Your task to perform on an android device: install app "Upside-Cash back on gas & food" Image 0: 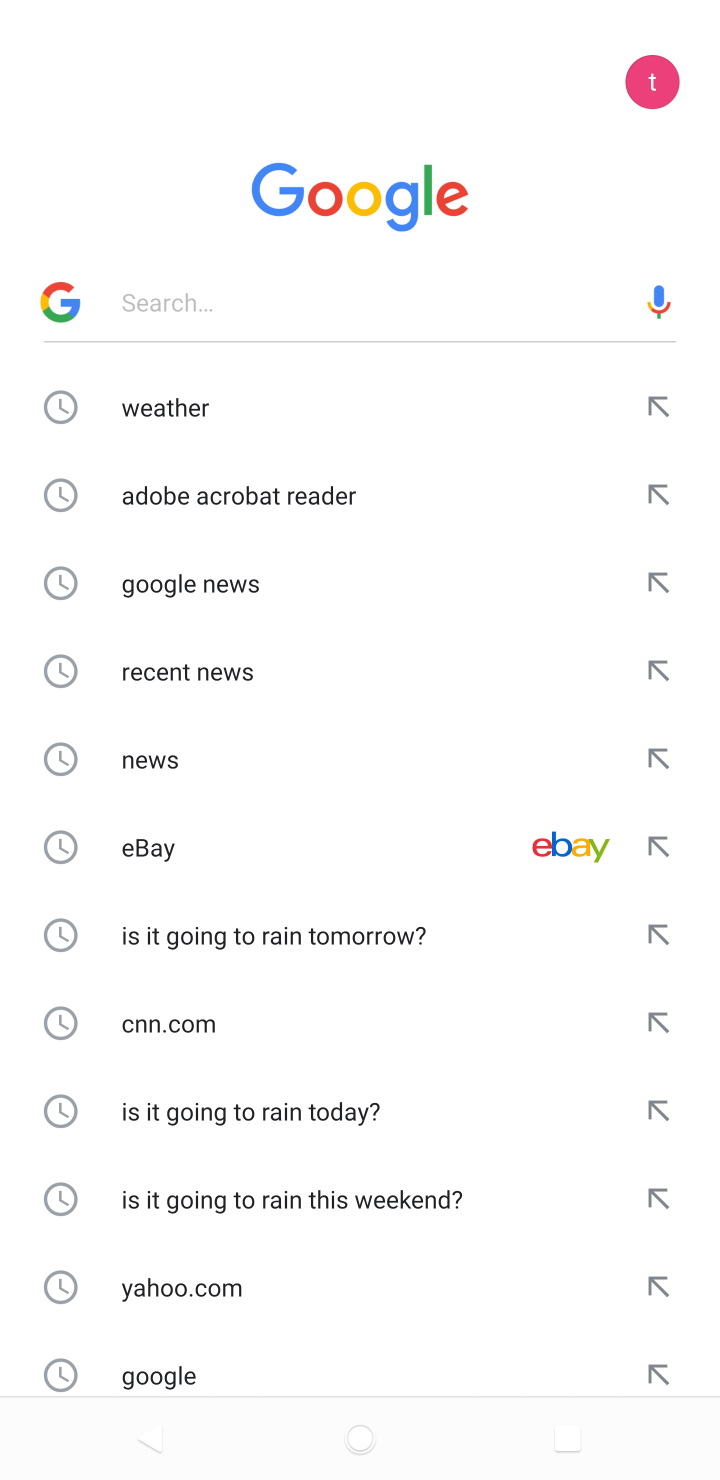
Step 0: press home button
Your task to perform on an android device: install app "Upside-Cash back on gas & food" Image 1: 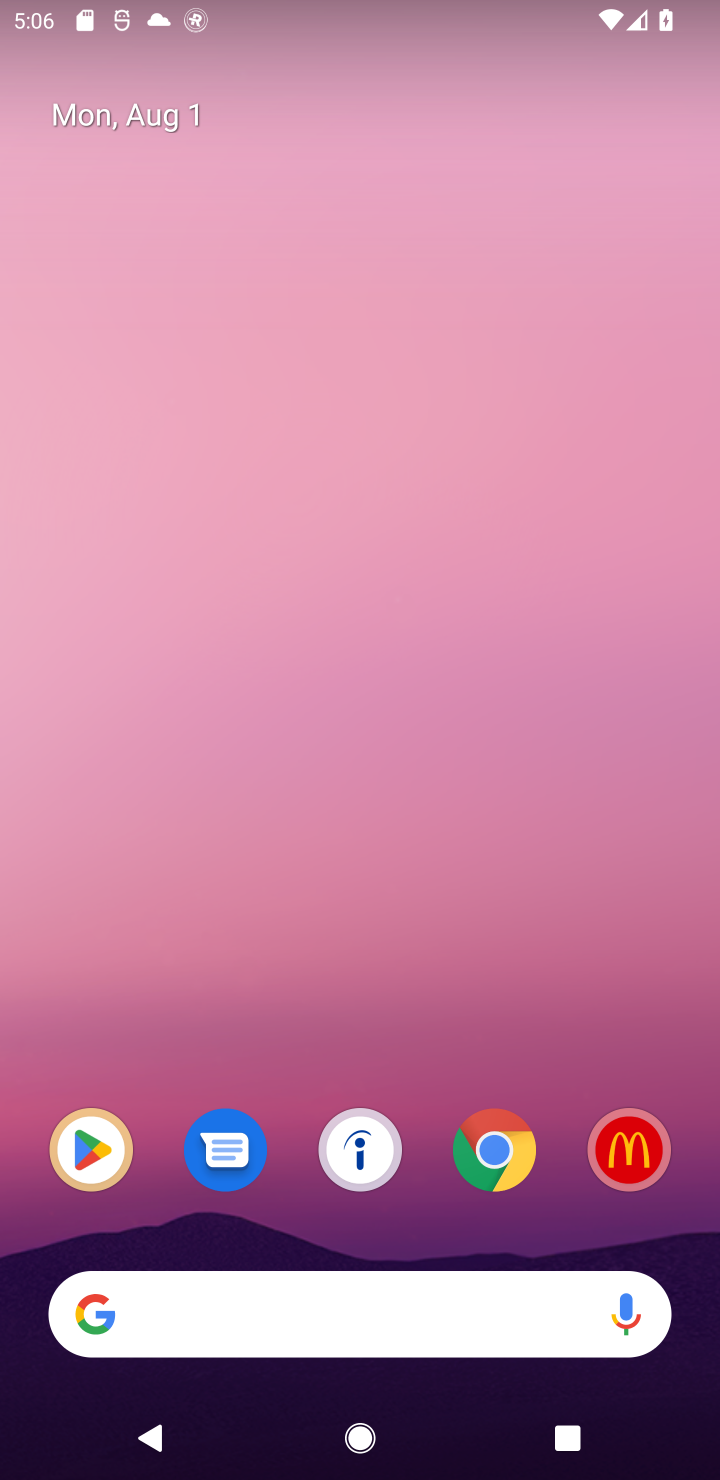
Step 1: click (101, 1151)
Your task to perform on an android device: install app "Upside-Cash back on gas & food" Image 2: 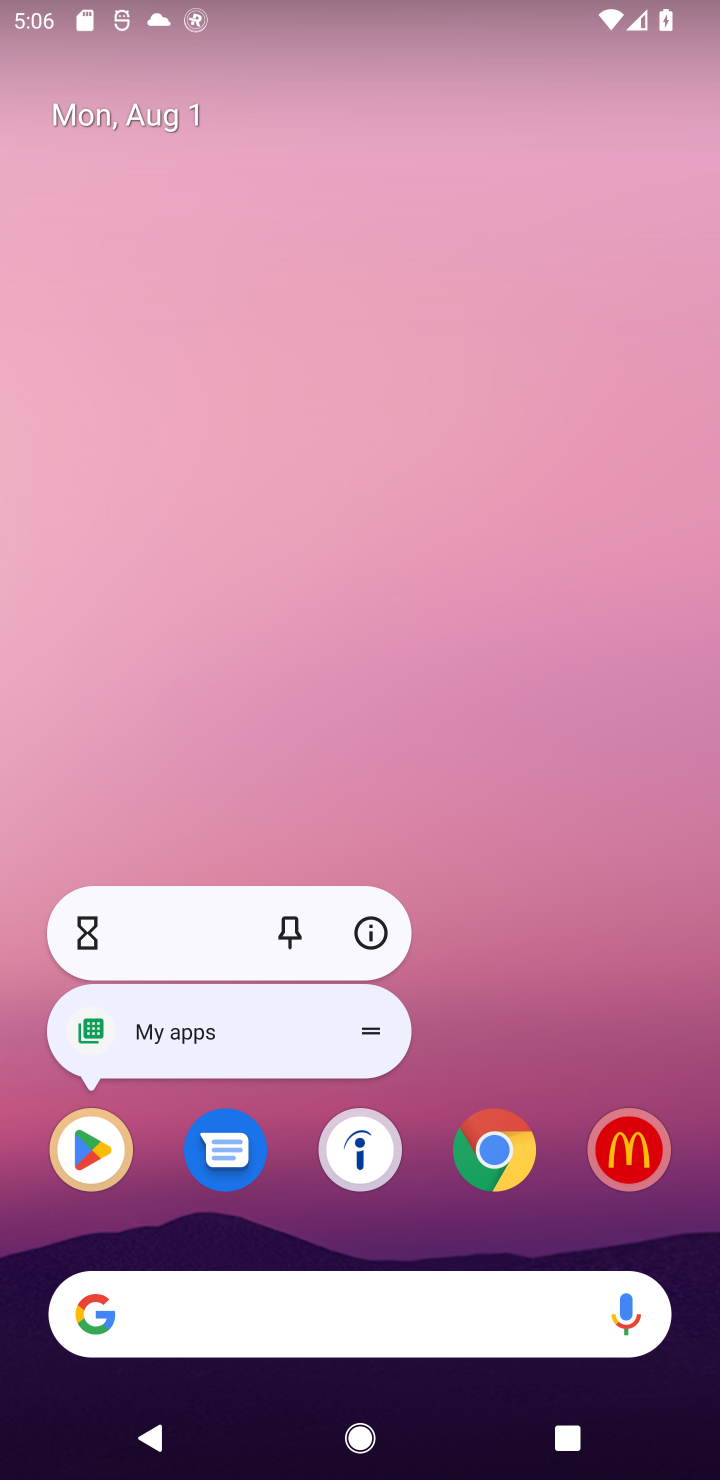
Step 2: click (329, 482)
Your task to perform on an android device: install app "Upside-Cash back on gas & food" Image 3: 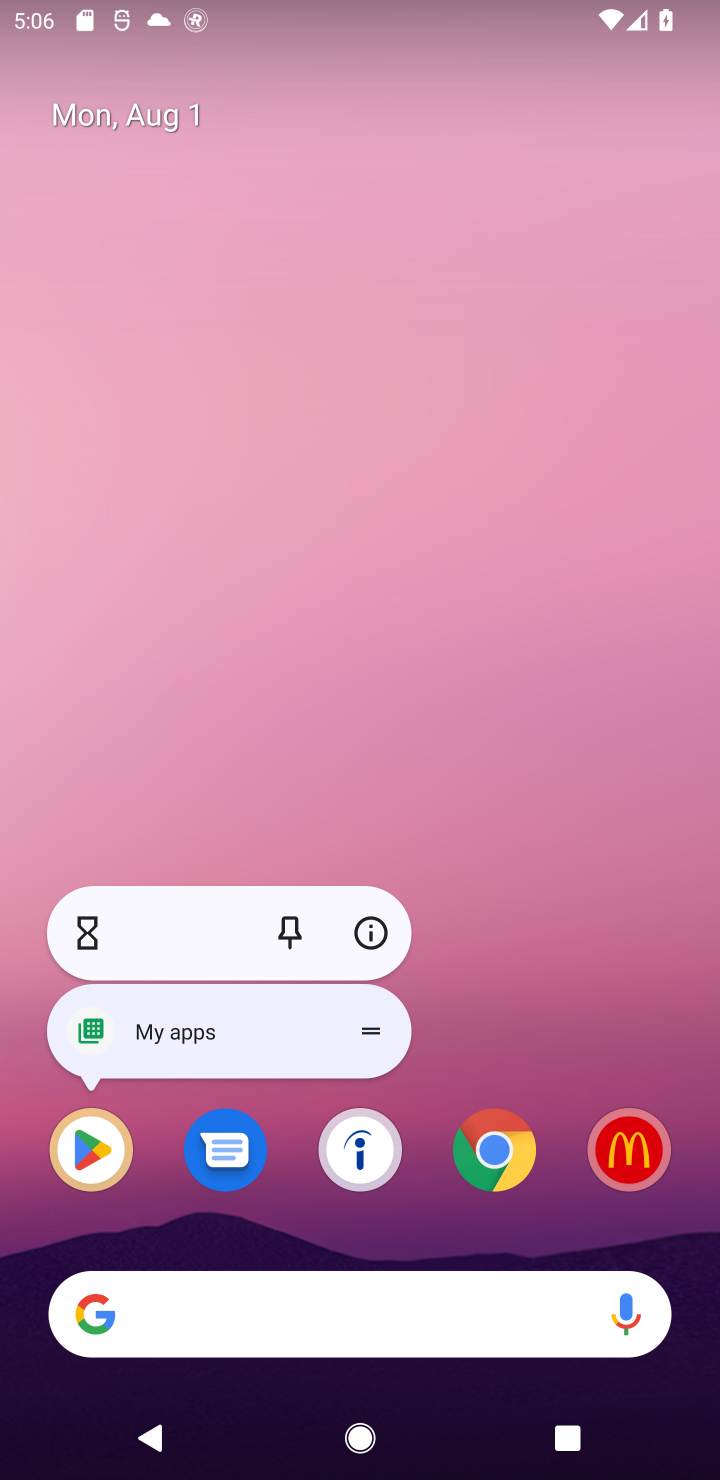
Step 3: click (329, 482)
Your task to perform on an android device: install app "Upside-Cash back on gas & food" Image 4: 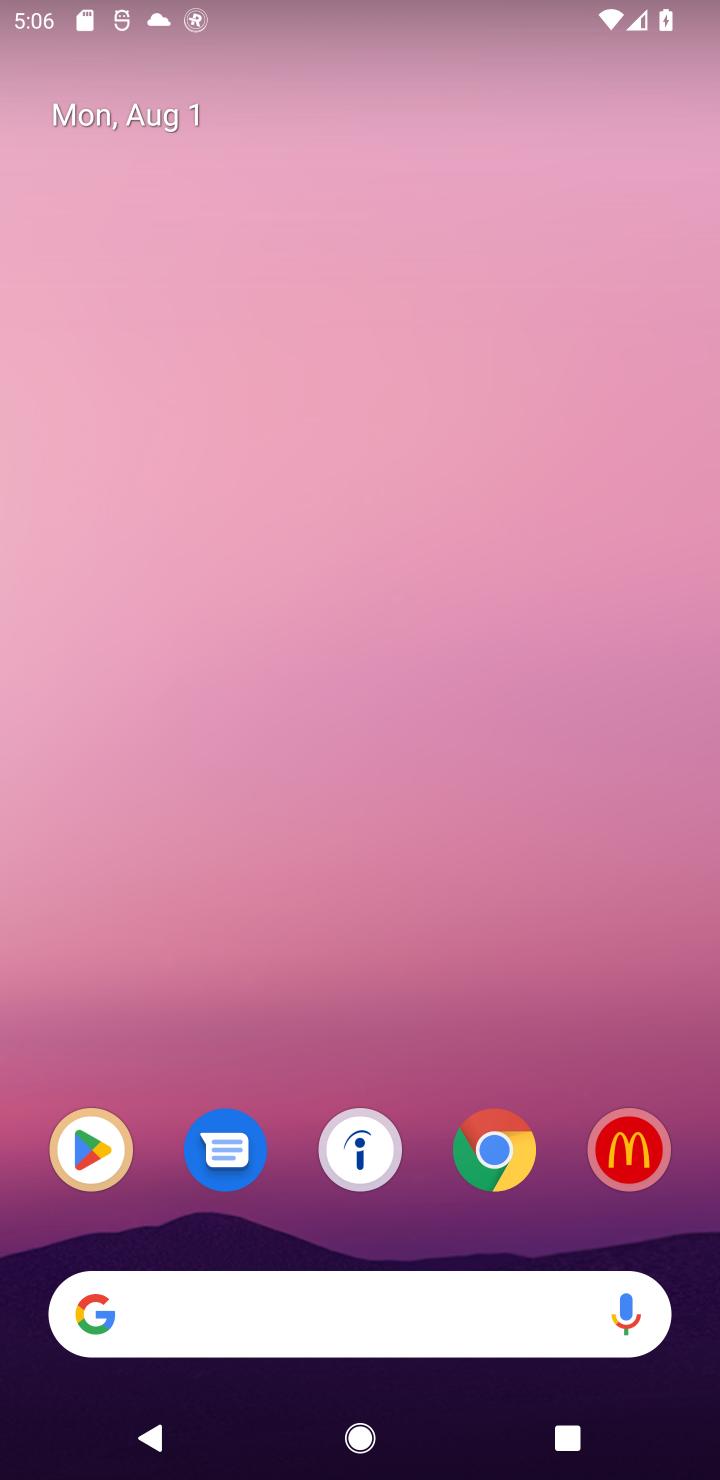
Step 4: click (89, 1165)
Your task to perform on an android device: install app "Upside-Cash back on gas & food" Image 5: 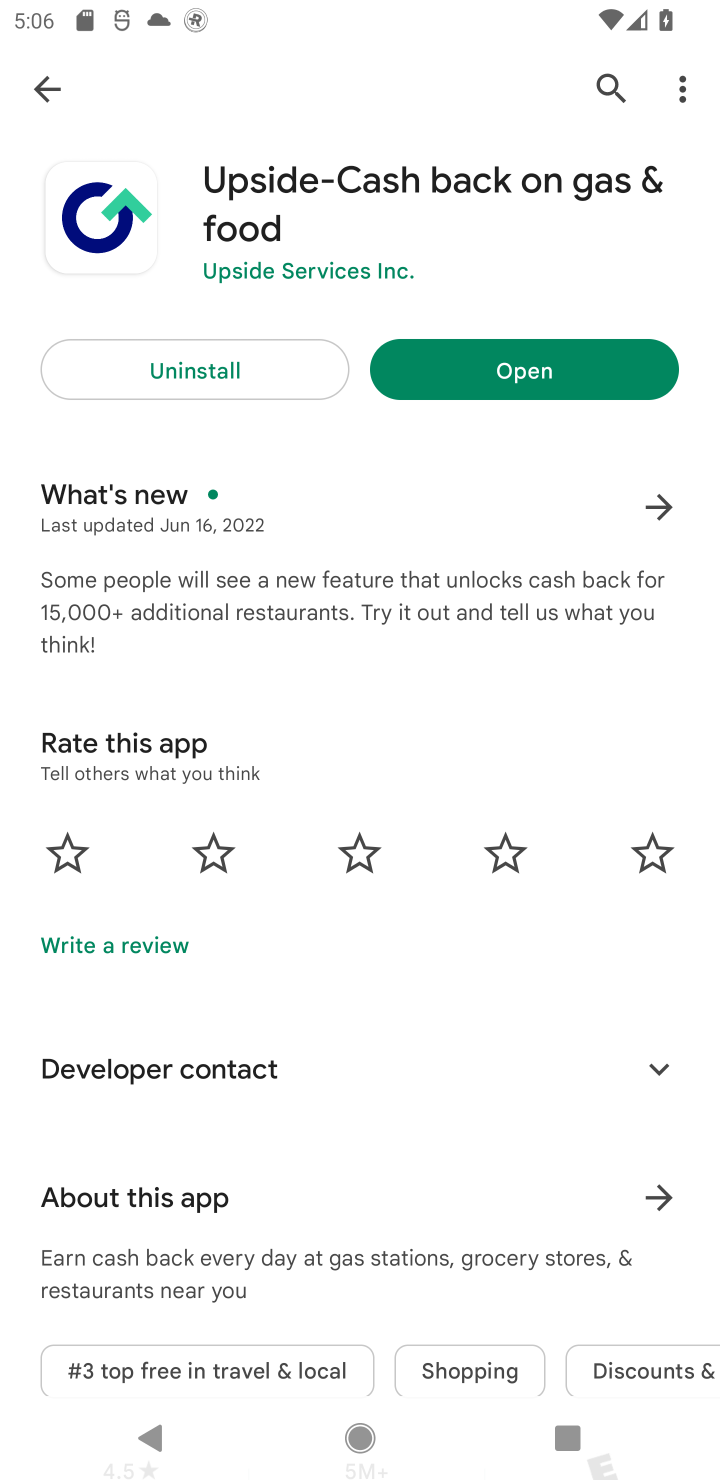
Step 5: click (434, 338)
Your task to perform on an android device: install app "Upside-Cash back on gas & food" Image 6: 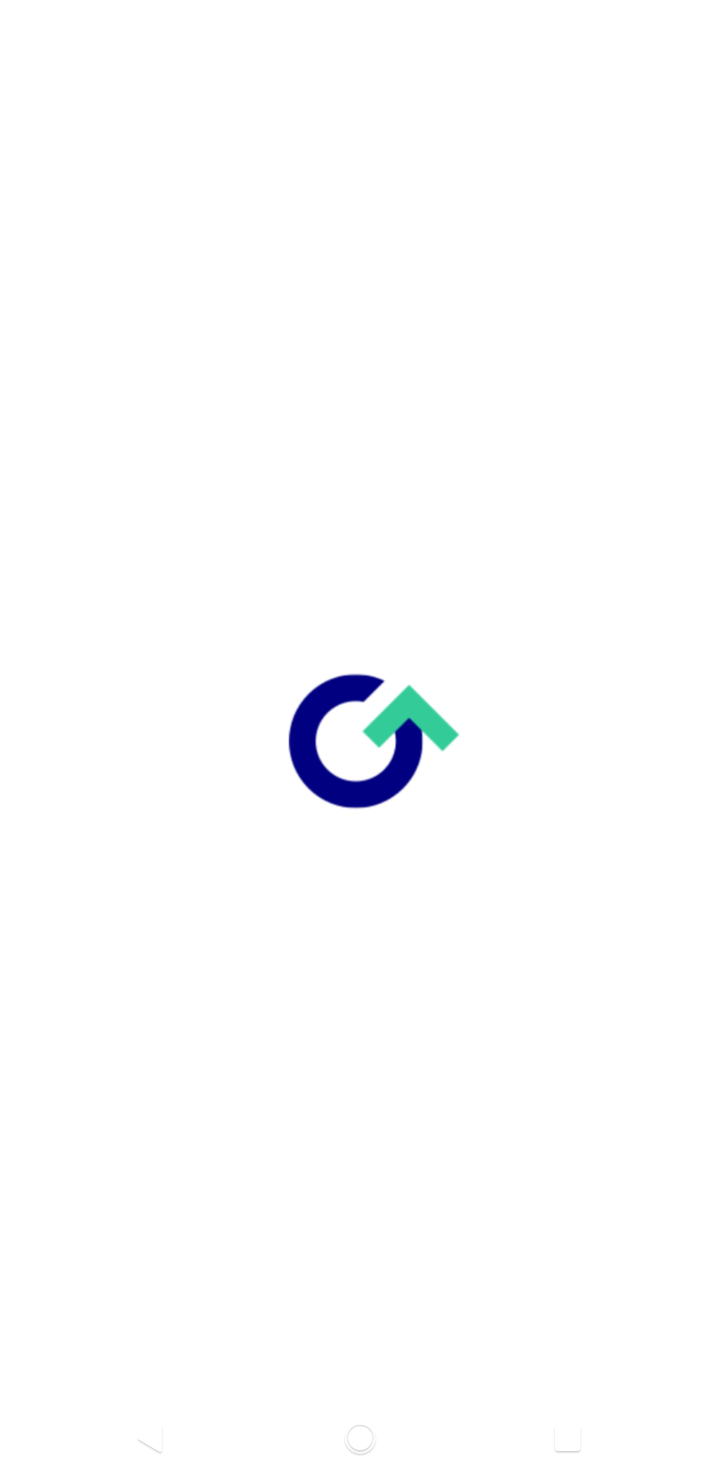
Step 6: task complete